Your task to perform on an android device: open app "McDonald's" (install if not already installed) and enter user name: "copes@yahoo.com" and password: "Rhenish" Image 0: 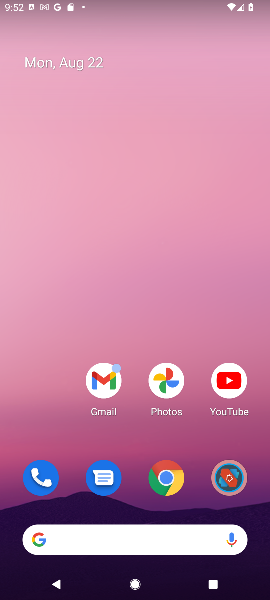
Step 0: drag from (194, 510) to (142, 49)
Your task to perform on an android device: open app "McDonald's" (install if not already installed) and enter user name: "copes@yahoo.com" and password: "Rhenish" Image 1: 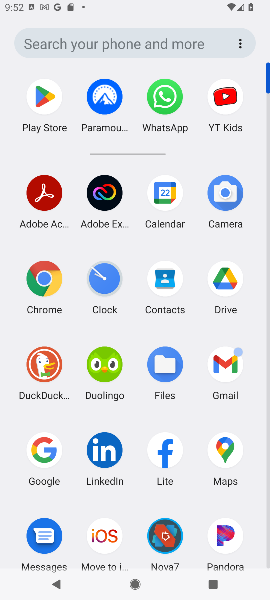
Step 1: click (50, 100)
Your task to perform on an android device: open app "McDonald's" (install if not already installed) and enter user name: "copes@yahoo.com" and password: "Rhenish" Image 2: 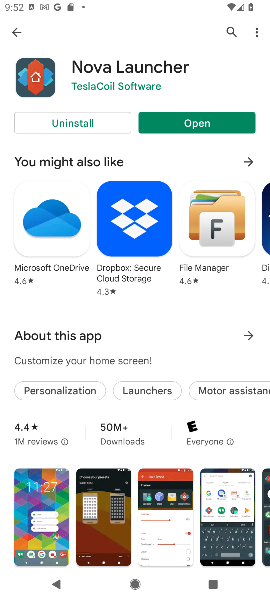
Step 2: click (235, 30)
Your task to perform on an android device: open app "McDonald's" (install if not already installed) and enter user name: "copes@yahoo.com" and password: "Rhenish" Image 3: 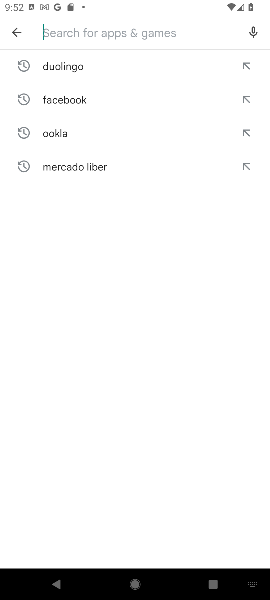
Step 3: type "mcdoland"
Your task to perform on an android device: open app "McDonald's" (install if not already installed) and enter user name: "copes@yahoo.com" and password: "Rhenish" Image 4: 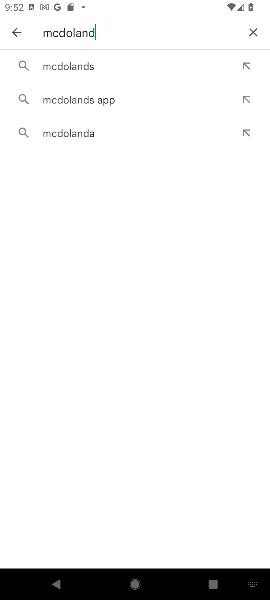
Step 4: click (132, 60)
Your task to perform on an android device: open app "McDonald's" (install if not already installed) and enter user name: "copes@yahoo.com" and password: "Rhenish" Image 5: 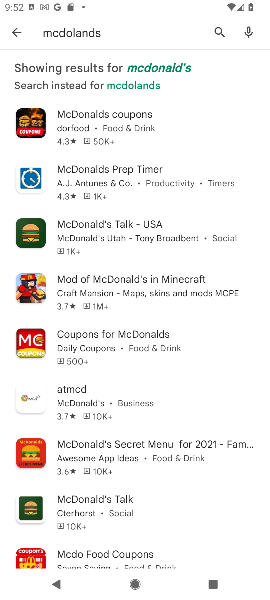
Step 5: click (178, 67)
Your task to perform on an android device: open app "McDonald's" (install if not already installed) and enter user name: "copes@yahoo.com" and password: "Rhenish" Image 6: 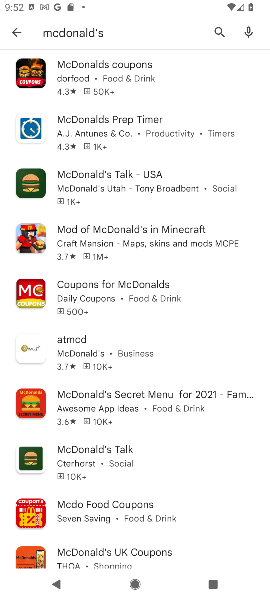
Step 6: task complete